Your task to perform on an android device: open app "LinkedIn" (install if not already installed) Image 0: 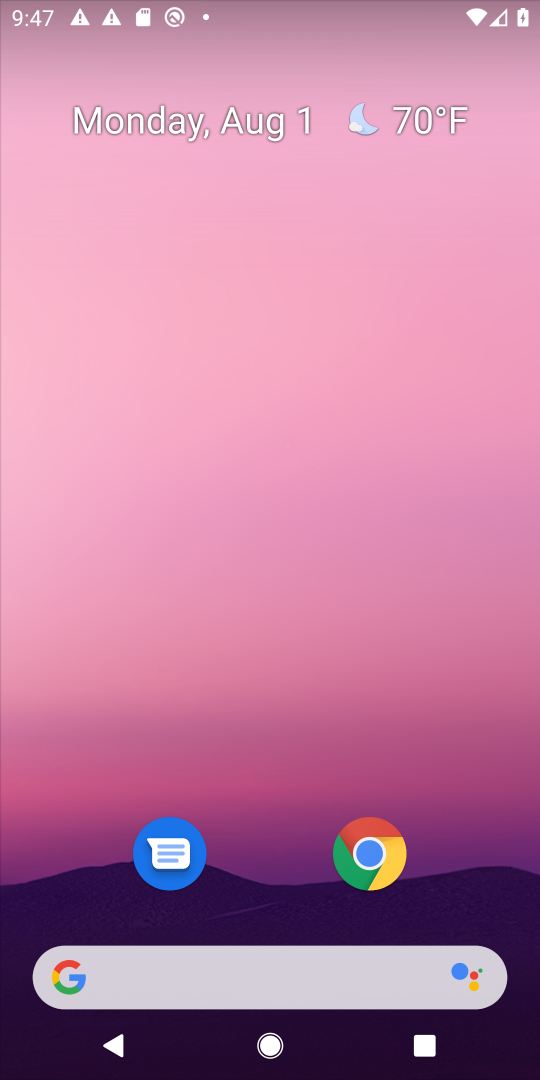
Step 0: drag from (294, 902) to (7, 432)
Your task to perform on an android device: open app "LinkedIn" (install if not already installed) Image 1: 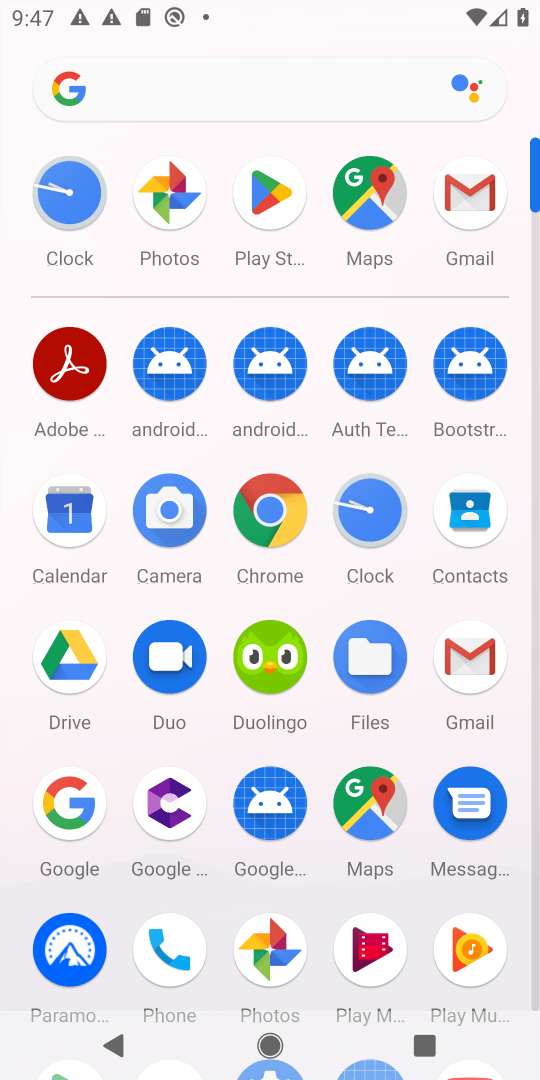
Step 1: drag from (211, 864) to (211, 385)
Your task to perform on an android device: open app "LinkedIn" (install if not already installed) Image 2: 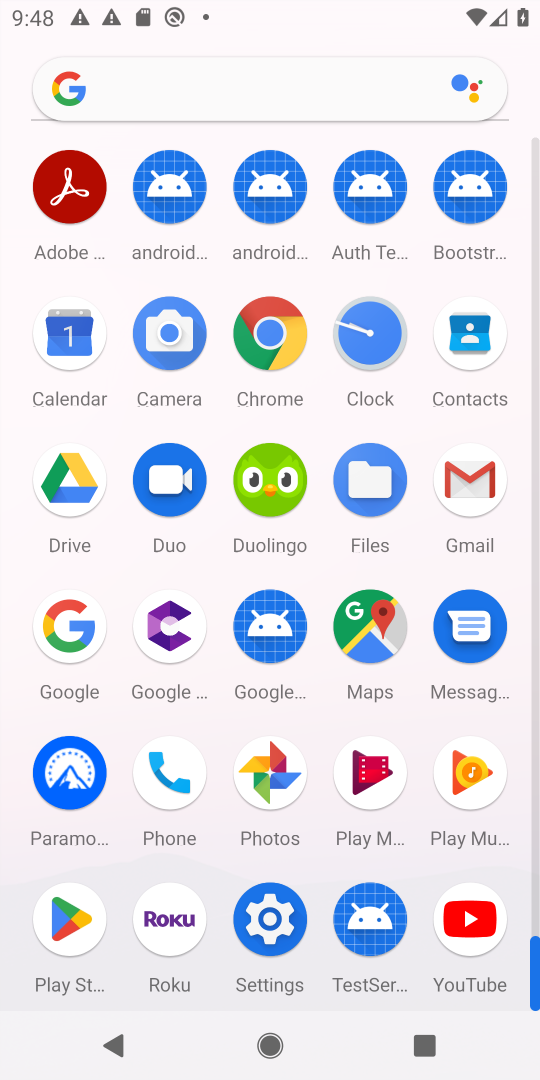
Step 2: click (71, 901)
Your task to perform on an android device: open app "LinkedIn" (install if not already installed) Image 3: 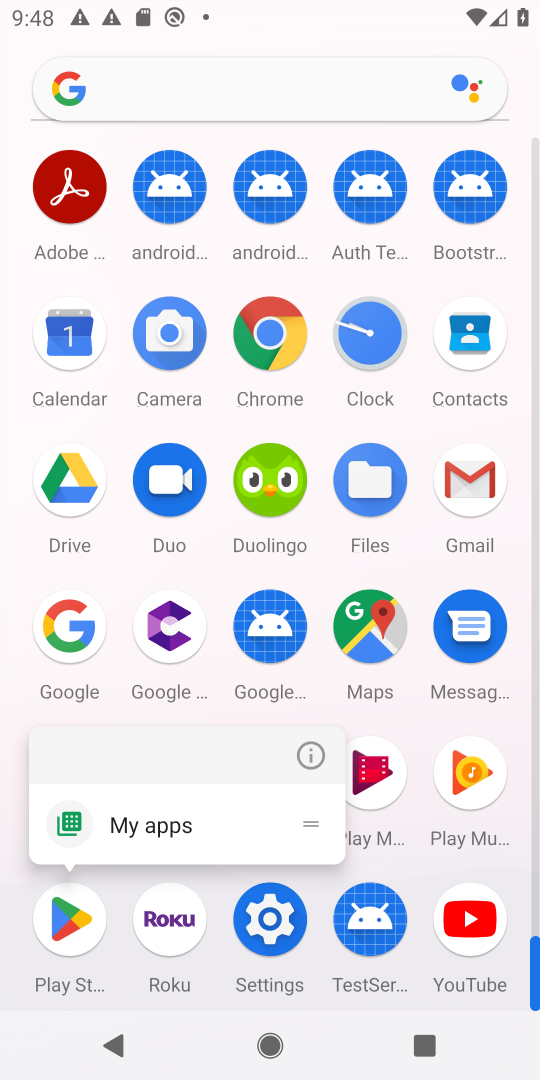
Step 3: click (299, 753)
Your task to perform on an android device: open app "LinkedIn" (install if not already installed) Image 4: 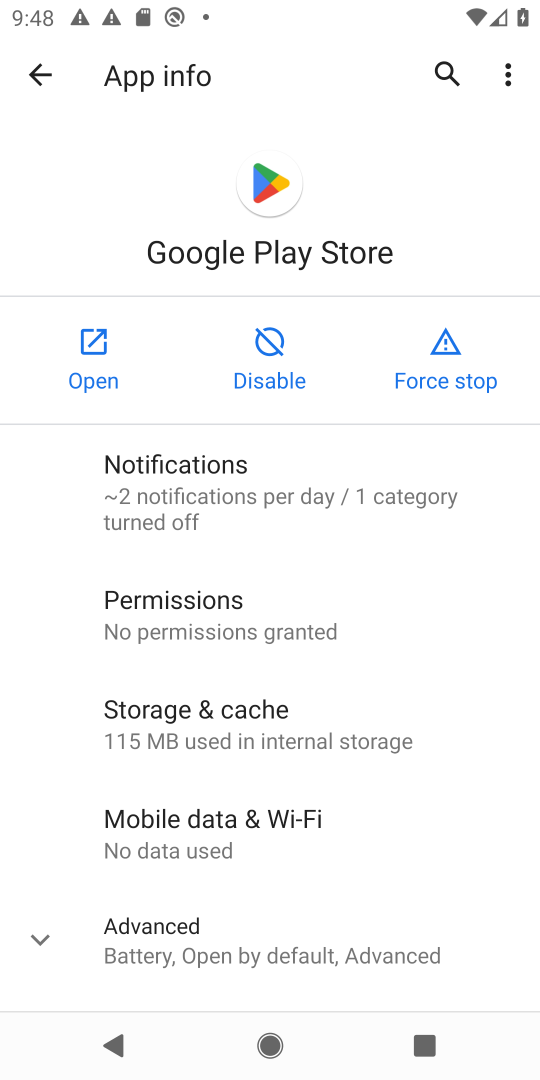
Step 4: click (87, 344)
Your task to perform on an android device: open app "LinkedIn" (install if not already installed) Image 5: 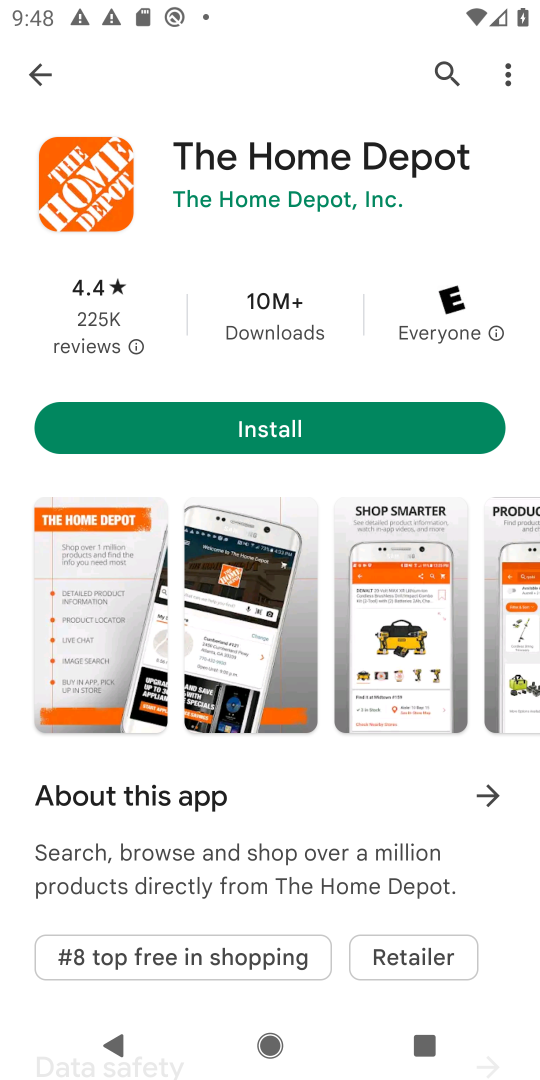
Step 5: click (446, 65)
Your task to perform on an android device: open app "LinkedIn" (install if not already installed) Image 6: 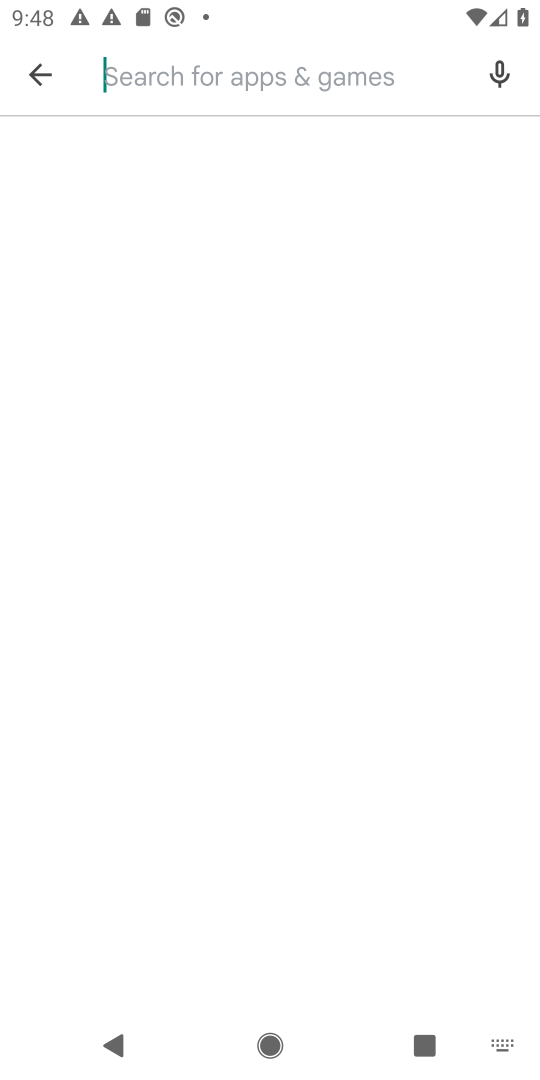
Step 6: type ""
Your task to perform on an android device: open app "LinkedIn" (install if not already installed) Image 7: 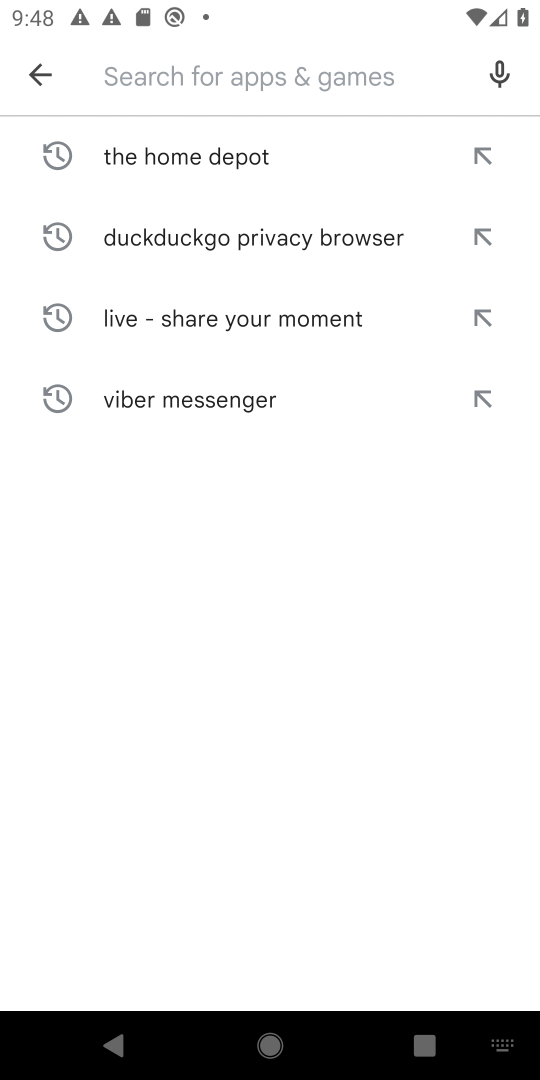
Step 7: type "LinkedIn"
Your task to perform on an android device: open app "LinkedIn" (install if not already installed) Image 8: 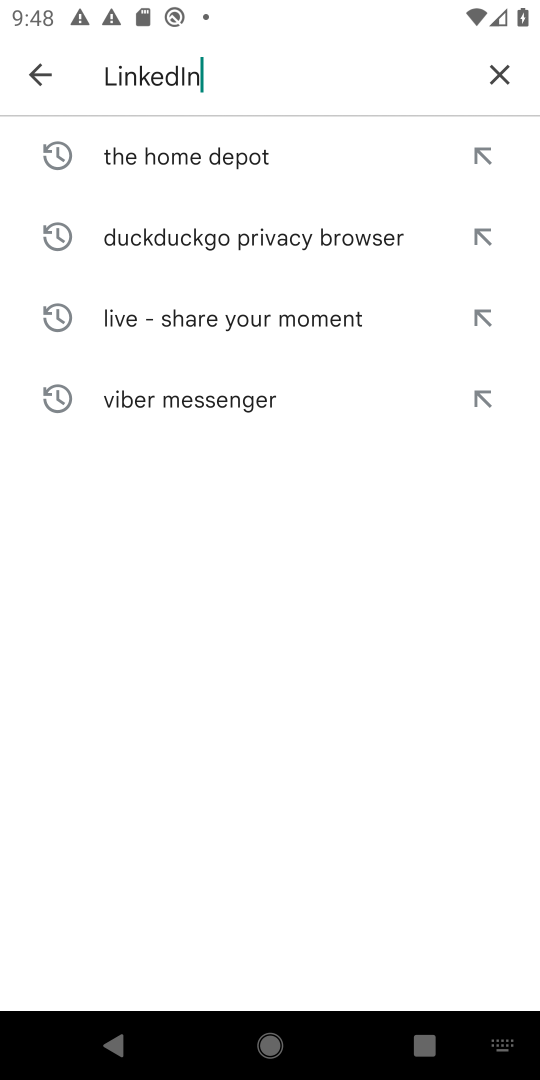
Step 8: type ""
Your task to perform on an android device: open app "LinkedIn" (install if not already installed) Image 9: 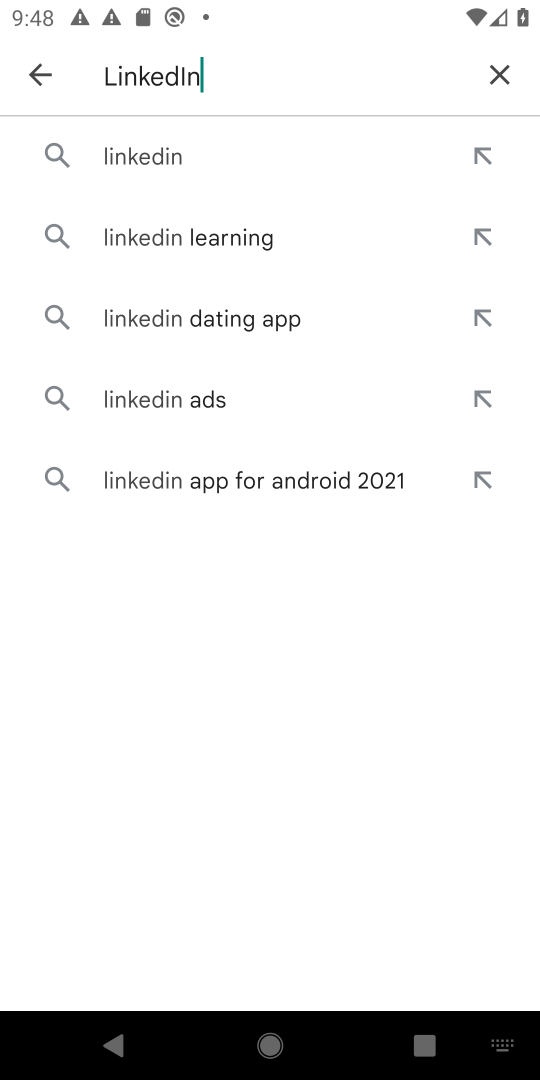
Step 9: click (172, 129)
Your task to perform on an android device: open app "LinkedIn" (install if not already installed) Image 10: 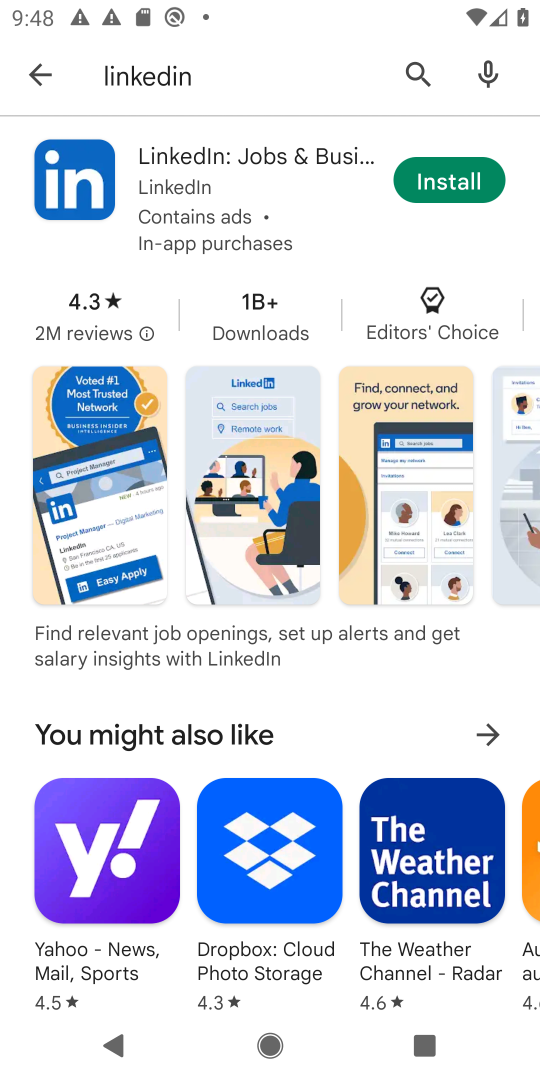
Step 10: click (178, 164)
Your task to perform on an android device: open app "LinkedIn" (install if not already installed) Image 11: 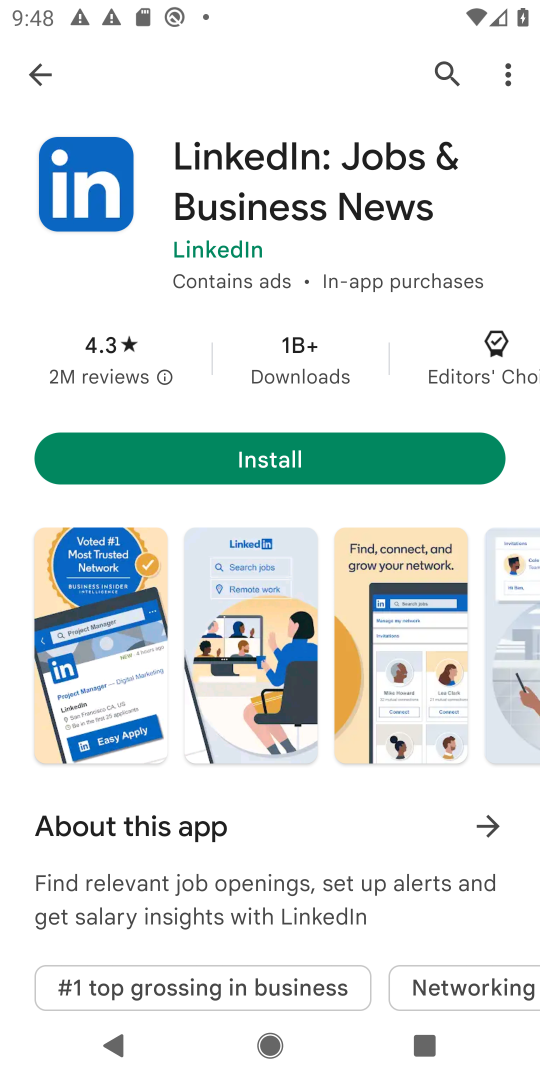
Step 11: click (176, 454)
Your task to perform on an android device: open app "LinkedIn" (install if not already installed) Image 12: 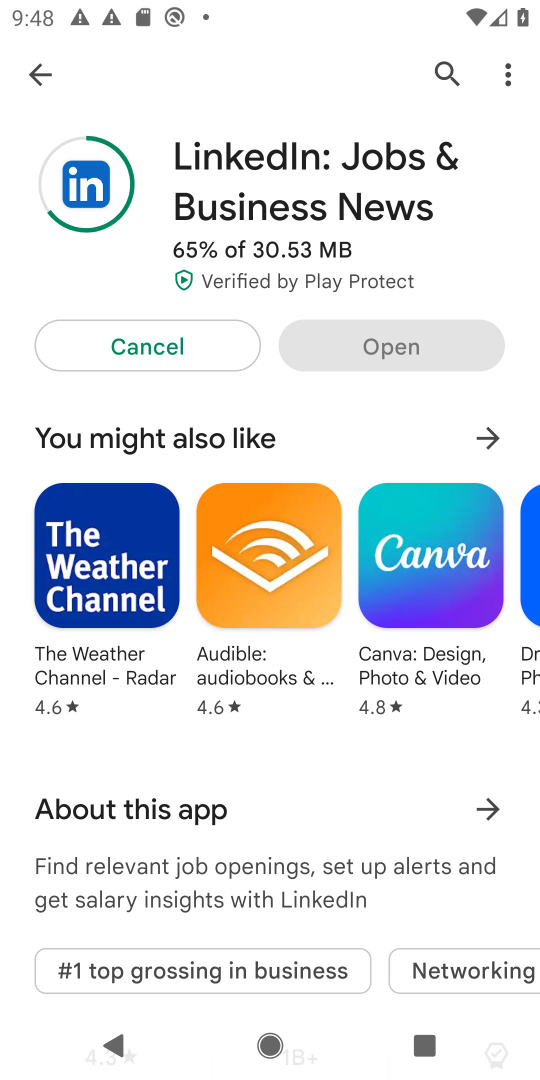
Step 12: drag from (347, 212) to (342, 843)
Your task to perform on an android device: open app "LinkedIn" (install if not already installed) Image 13: 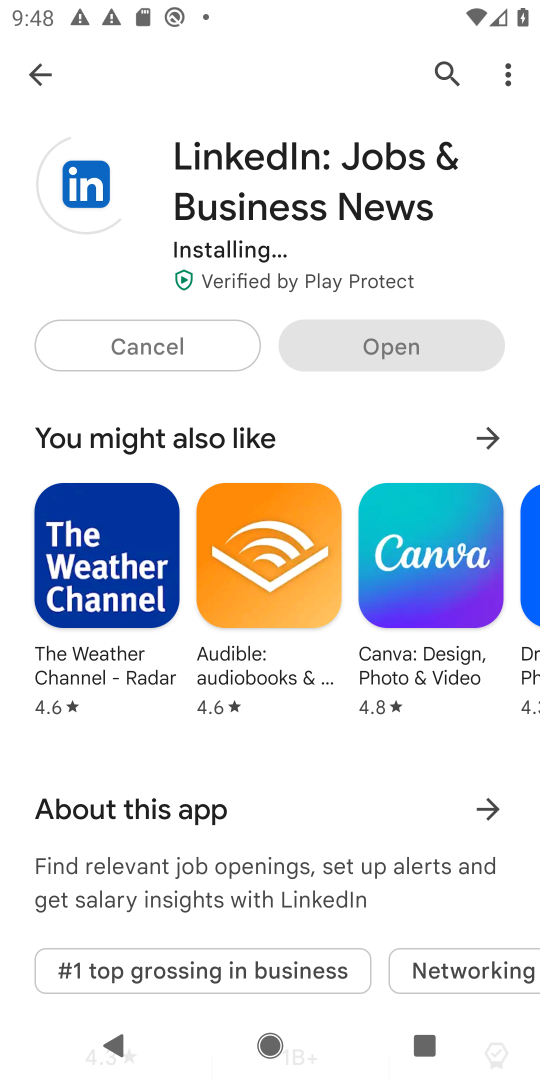
Step 13: click (311, 216)
Your task to perform on an android device: open app "LinkedIn" (install if not already installed) Image 14: 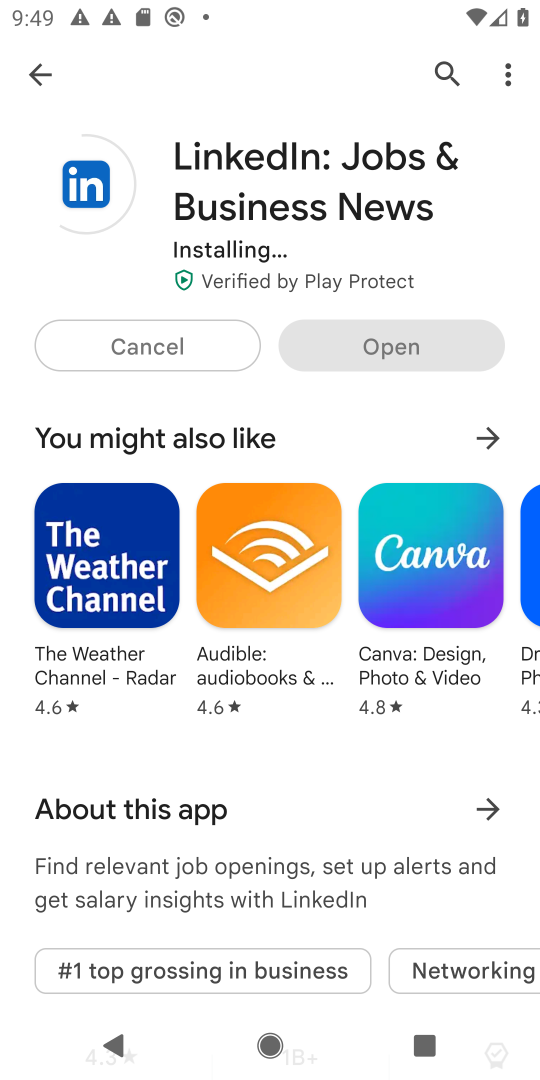
Step 14: click (376, 112)
Your task to perform on an android device: open app "LinkedIn" (install if not already installed) Image 15: 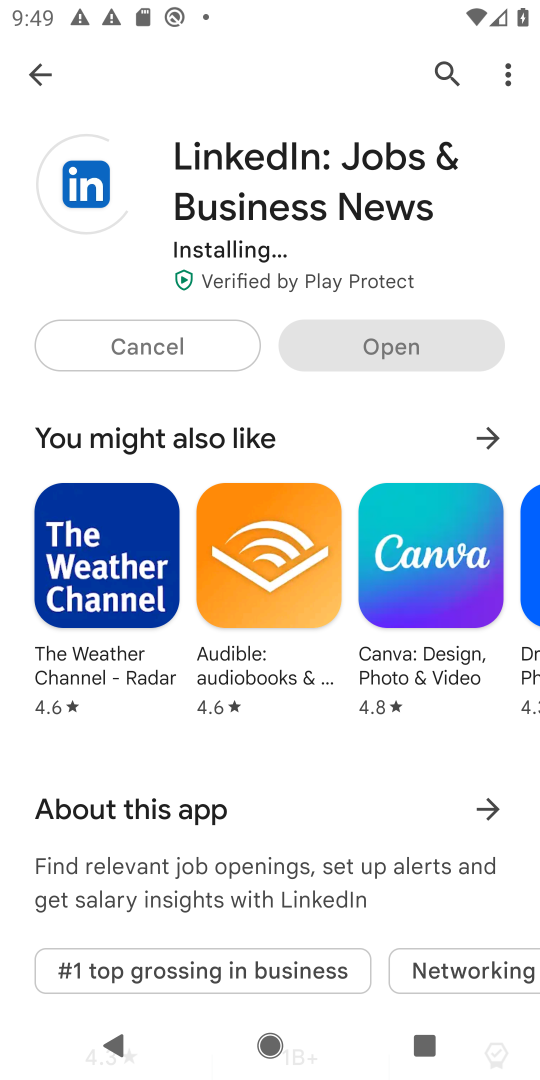
Step 15: click (255, 229)
Your task to perform on an android device: open app "LinkedIn" (install if not already installed) Image 16: 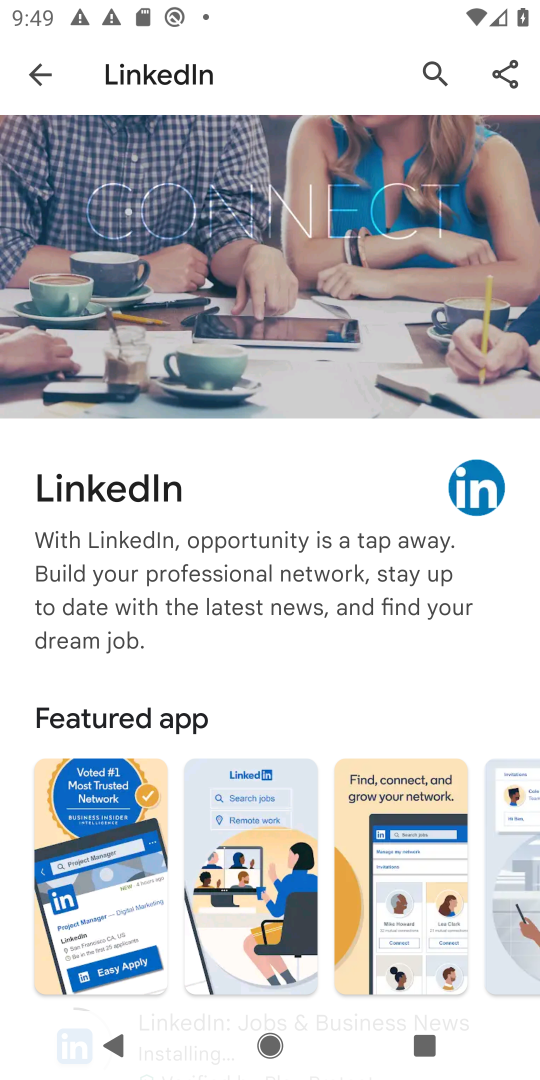
Step 16: click (47, 74)
Your task to perform on an android device: open app "LinkedIn" (install if not already installed) Image 17: 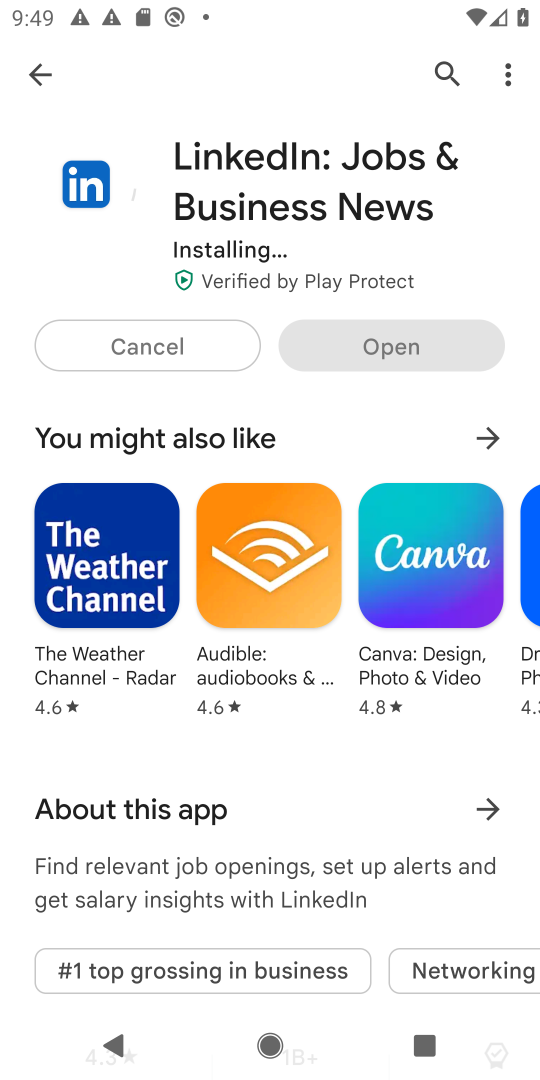
Step 17: drag from (282, 197) to (37, 1035)
Your task to perform on an android device: open app "LinkedIn" (install if not already installed) Image 18: 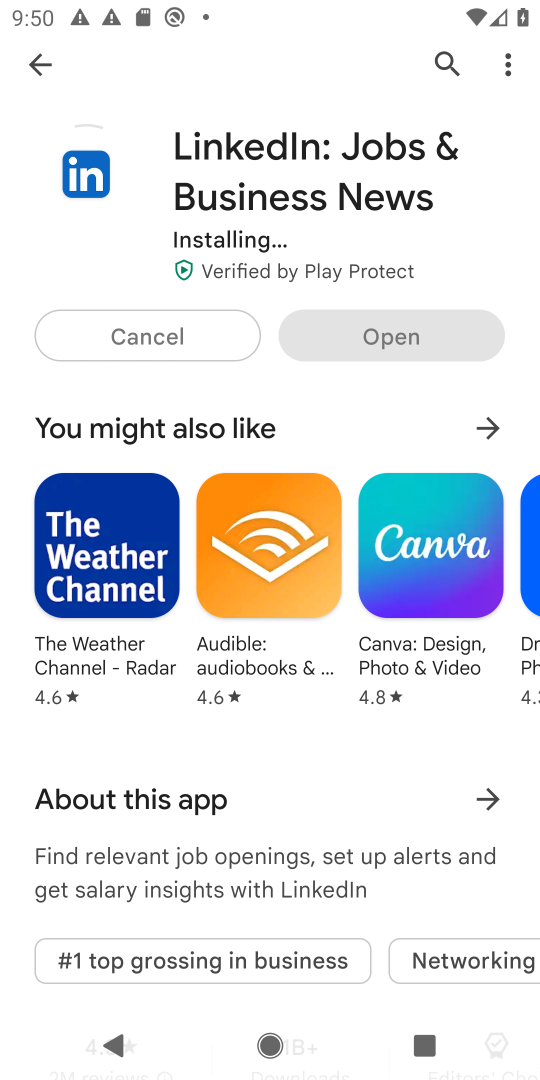
Step 18: drag from (308, 214) to (349, 984)
Your task to perform on an android device: open app "LinkedIn" (install if not already installed) Image 19: 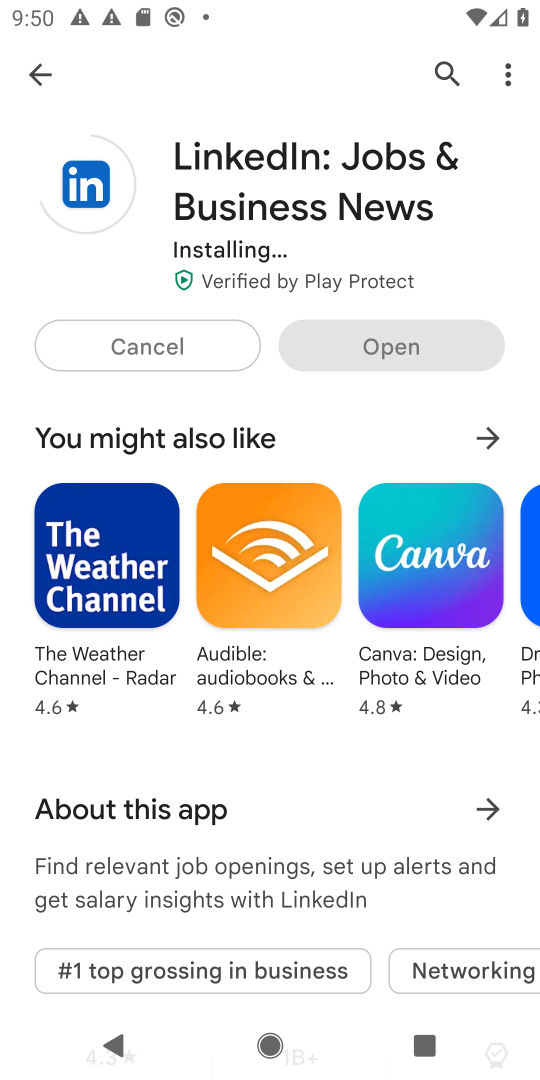
Step 19: drag from (286, 196) to (192, 671)
Your task to perform on an android device: open app "LinkedIn" (install if not already installed) Image 20: 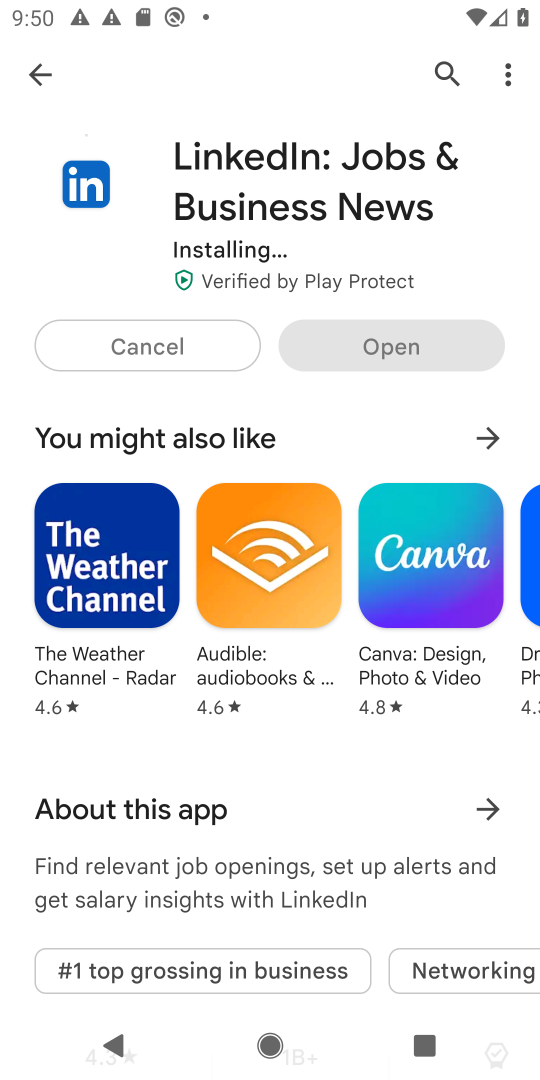
Step 20: drag from (324, 224) to (276, 718)
Your task to perform on an android device: open app "LinkedIn" (install if not already installed) Image 21: 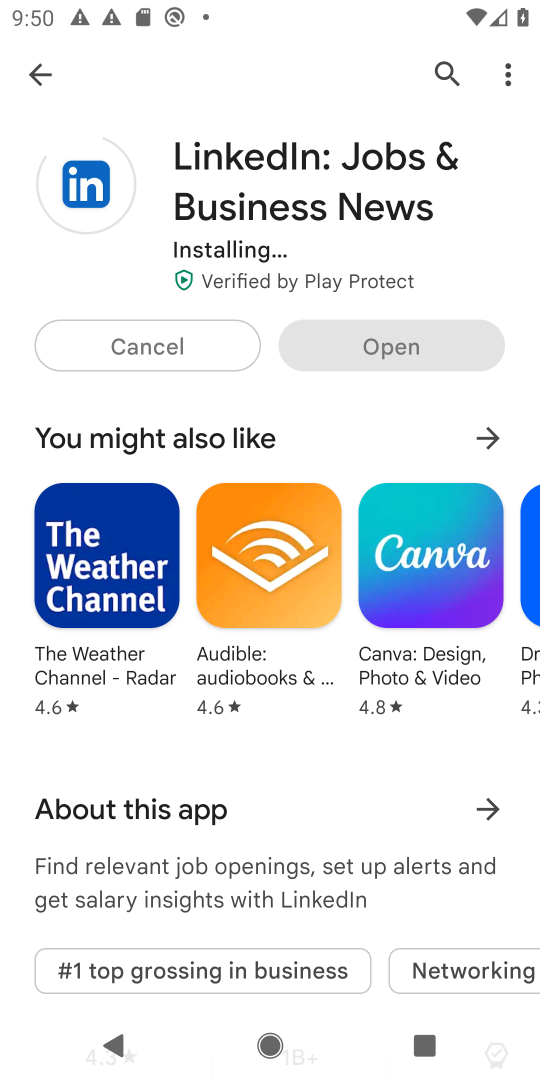
Step 21: drag from (274, 217) to (59, 820)
Your task to perform on an android device: open app "LinkedIn" (install if not already installed) Image 22: 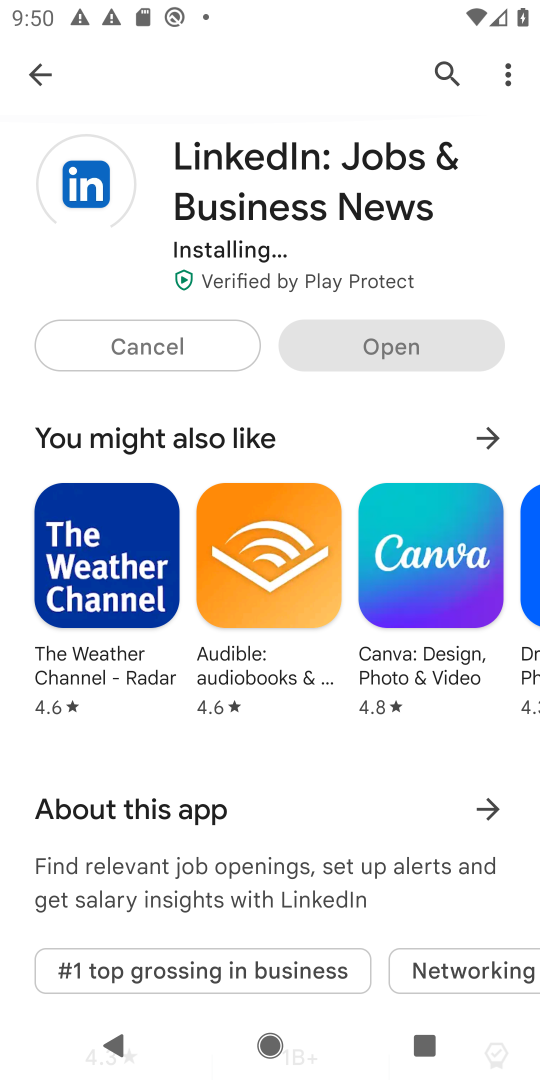
Step 22: drag from (337, 194) to (294, 708)
Your task to perform on an android device: open app "LinkedIn" (install if not already installed) Image 23: 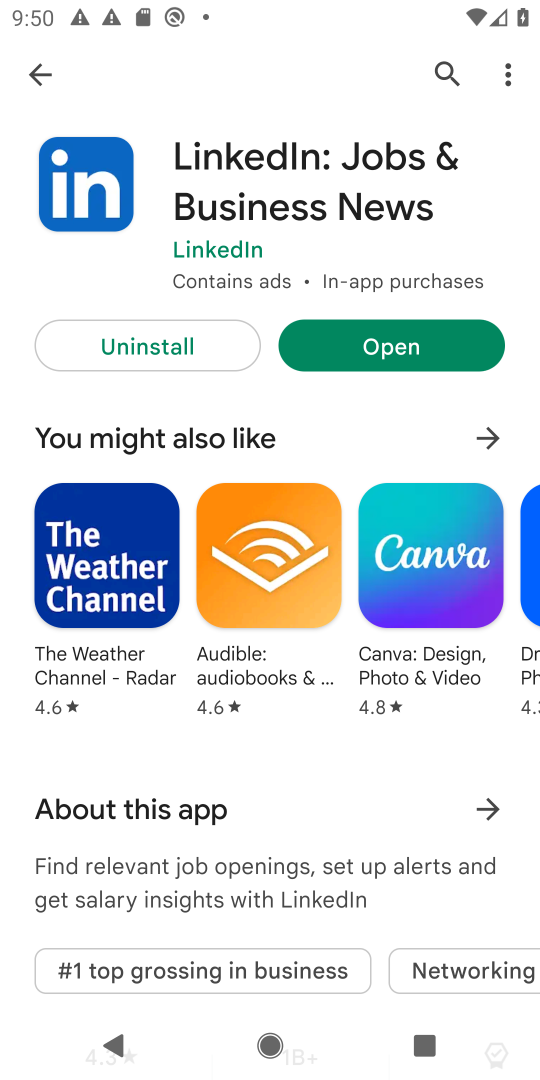
Step 23: drag from (306, 188) to (410, 1062)
Your task to perform on an android device: open app "LinkedIn" (install if not already installed) Image 24: 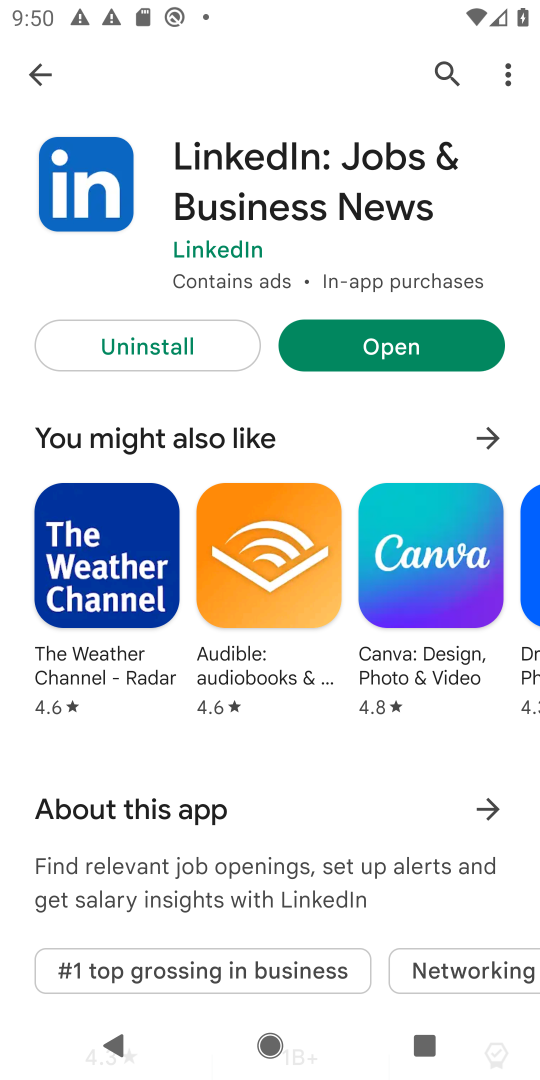
Step 24: click (374, 343)
Your task to perform on an android device: open app "LinkedIn" (install if not already installed) Image 25: 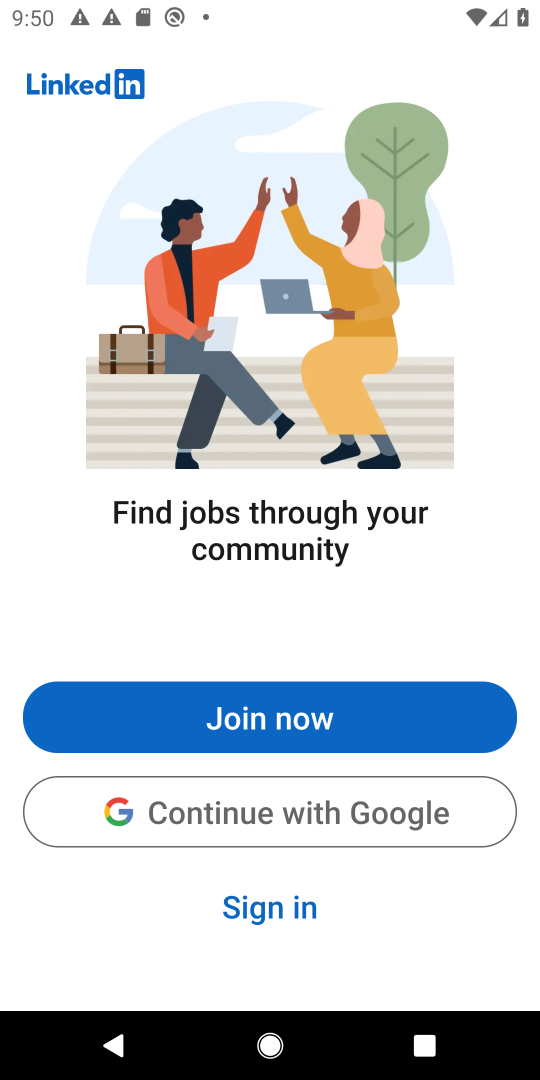
Step 25: task complete